Your task to perform on an android device: Go to location settings Image 0: 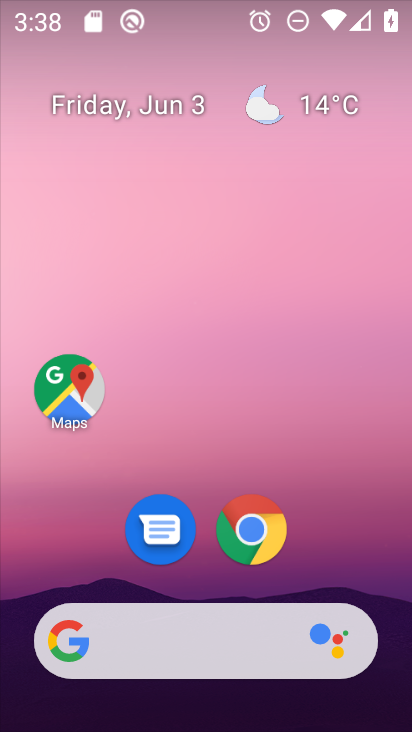
Step 0: drag from (344, 580) to (359, 249)
Your task to perform on an android device: Go to location settings Image 1: 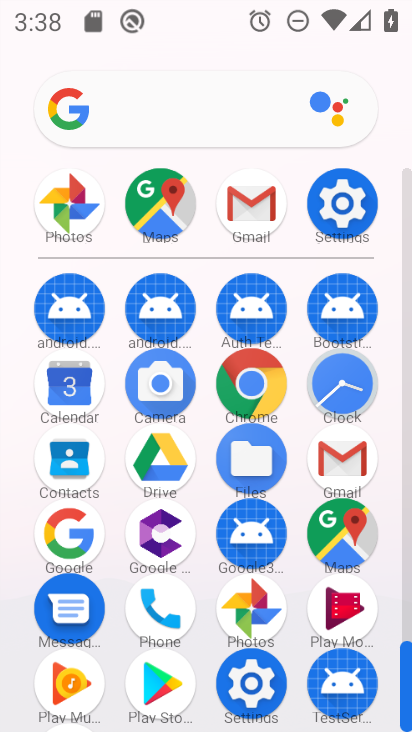
Step 1: click (349, 215)
Your task to perform on an android device: Go to location settings Image 2: 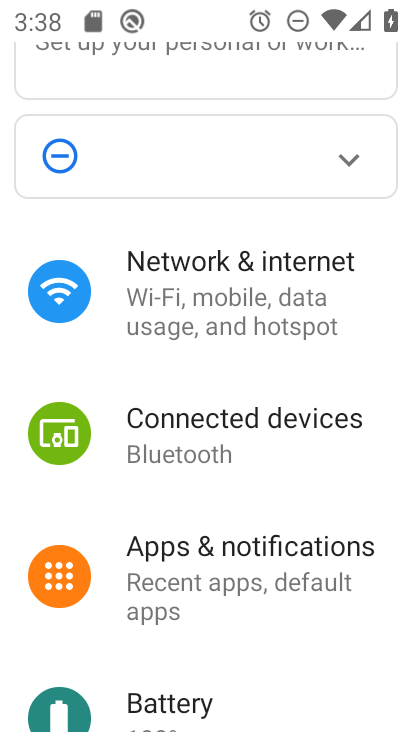
Step 2: drag from (371, 330) to (363, 555)
Your task to perform on an android device: Go to location settings Image 3: 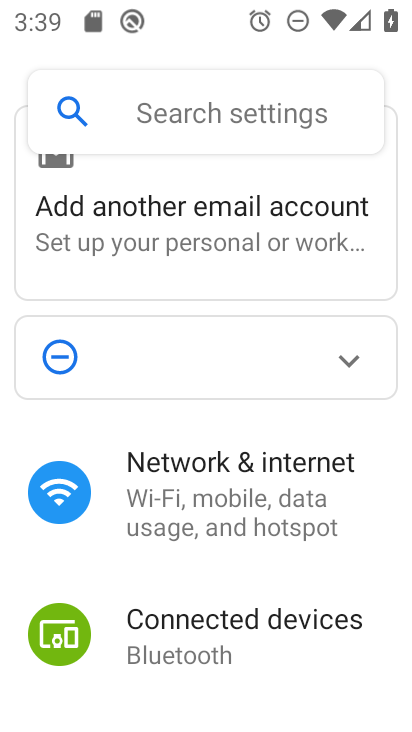
Step 3: drag from (365, 373) to (365, 535)
Your task to perform on an android device: Go to location settings Image 4: 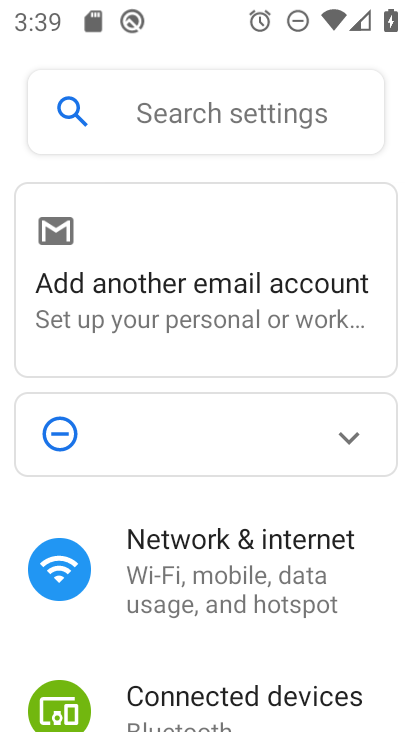
Step 4: drag from (367, 570) to (369, 377)
Your task to perform on an android device: Go to location settings Image 5: 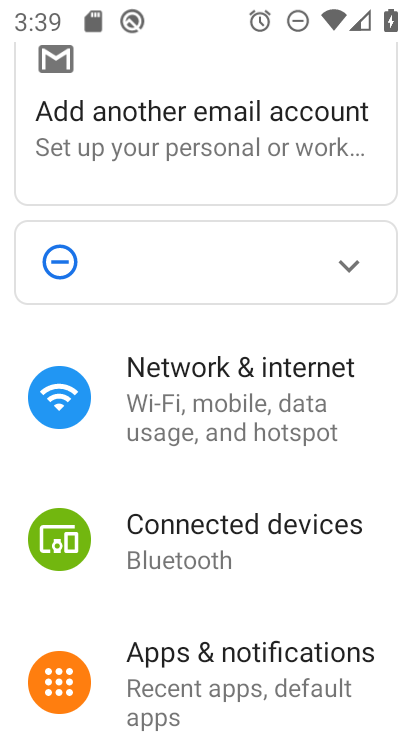
Step 5: drag from (364, 605) to (364, 465)
Your task to perform on an android device: Go to location settings Image 6: 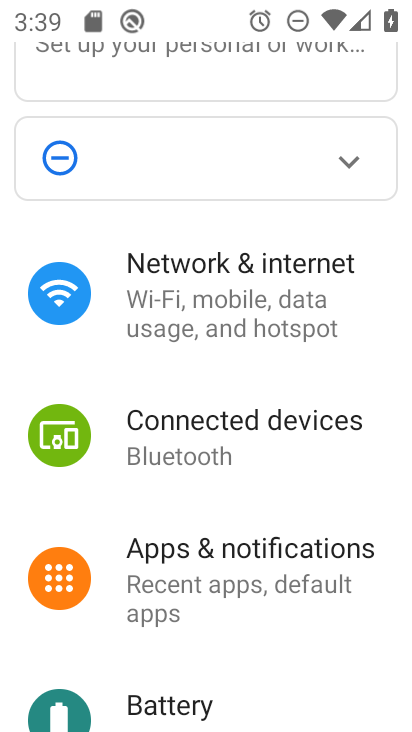
Step 6: drag from (354, 628) to (355, 463)
Your task to perform on an android device: Go to location settings Image 7: 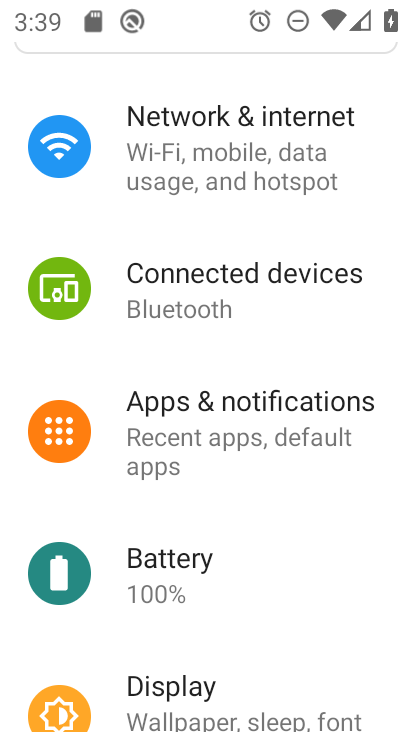
Step 7: drag from (355, 617) to (356, 444)
Your task to perform on an android device: Go to location settings Image 8: 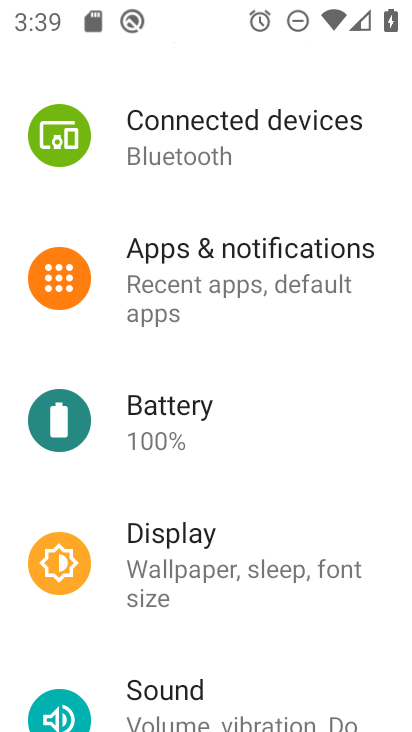
Step 8: drag from (353, 634) to (352, 454)
Your task to perform on an android device: Go to location settings Image 9: 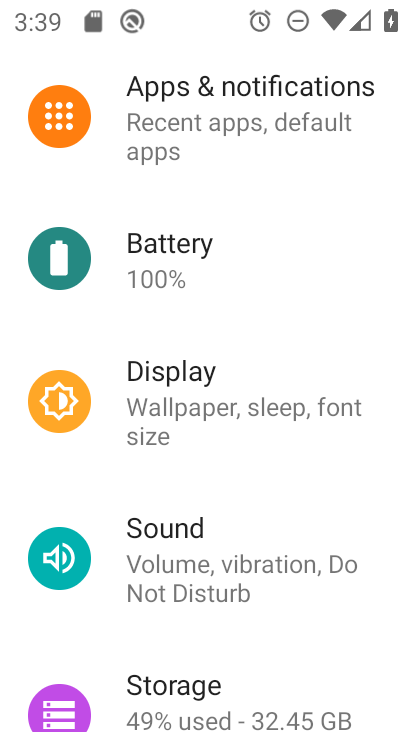
Step 9: drag from (353, 598) to (345, 409)
Your task to perform on an android device: Go to location settings Image 10: 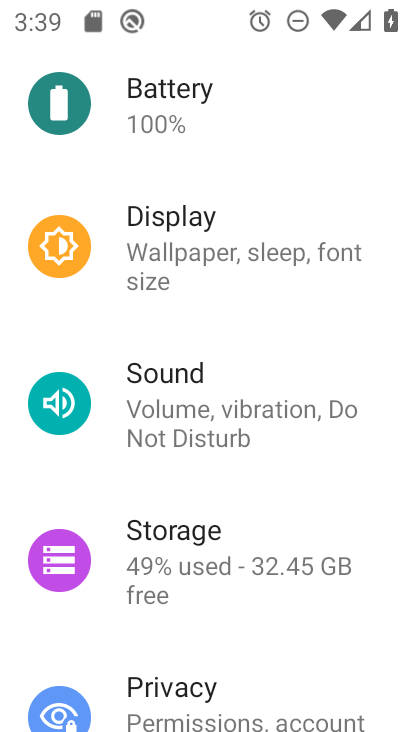
Step 10: drag from (335, 653) to (335, 436)
Your task to perform on an android device: Go to location settings Image 11: 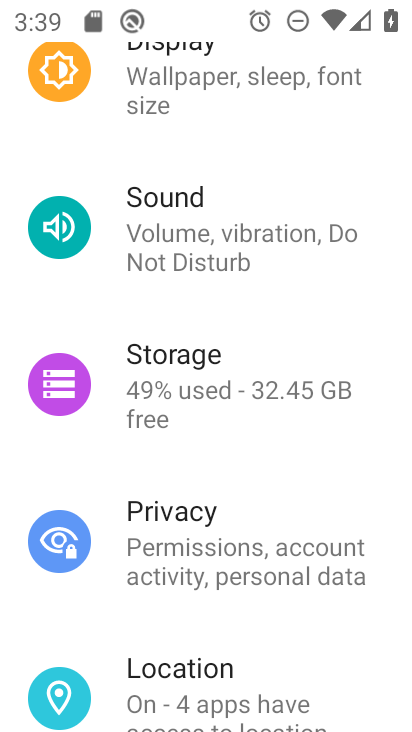
Step 11: drag from (365, 663) to (354, 433)
Your task to perform on an android device: Go to location settings Image 12: 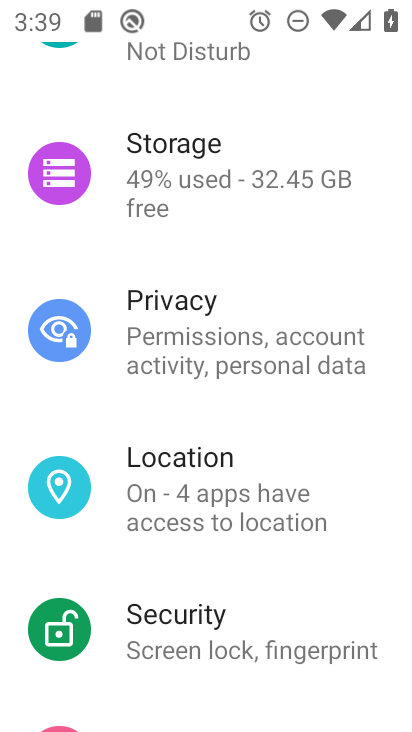
Step 12: click (277, 509)
Your task to perform on an android device: Go to location settings Image 13: 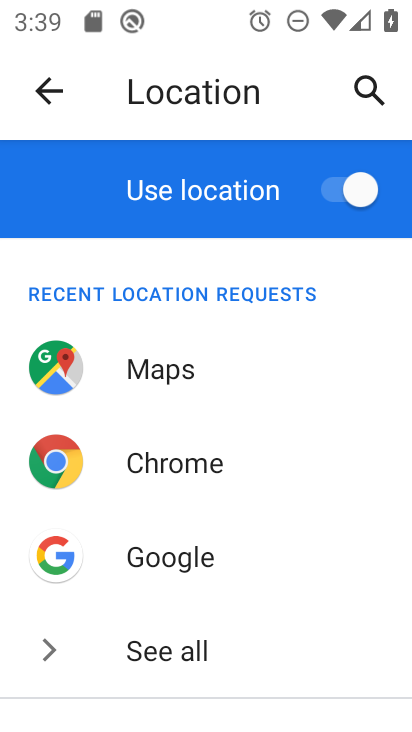
Step 13: task complete